Your task to perform on an android device: Open the calendar app, open the side menu, and click the "Day" option Image 0: 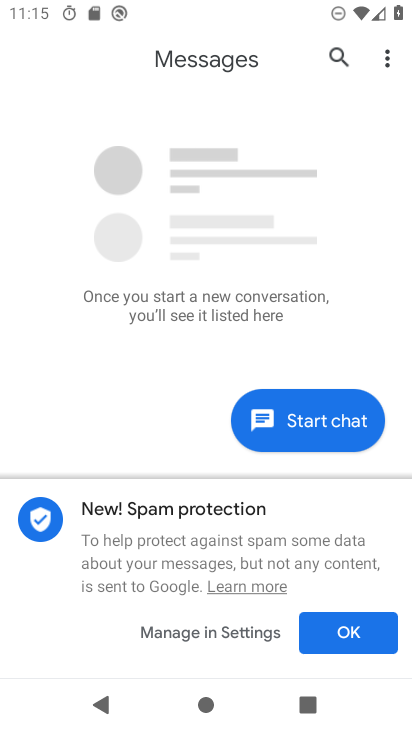
Step 0: press home button
Your task to perform on an android device: Open the calendar app, open the side menu, and click the "Day" option Image 1: 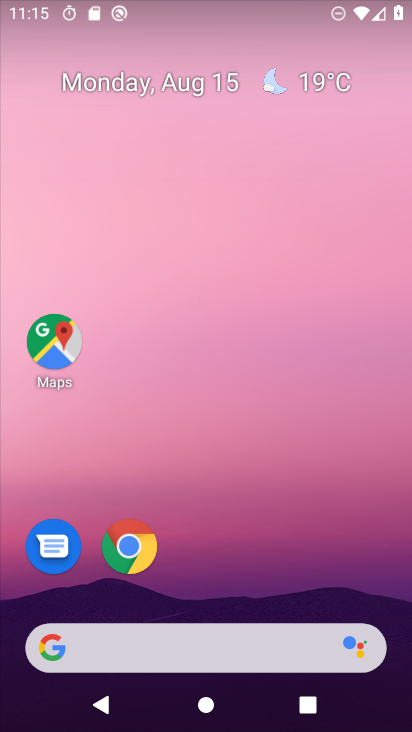
Step 1: drag from (235, 613) to (185, 42)
Your task to perform on an android device: Open the calendar app, open the side menu, and click the "Day" option Image 2: 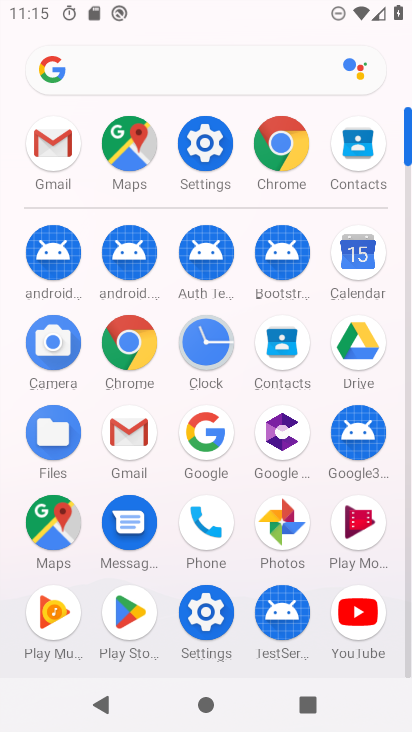
Step 2: click (362, 252)
Your task to perform on an android device: Open the calendar app, open the side menu, and click the "Day" option Image 3: 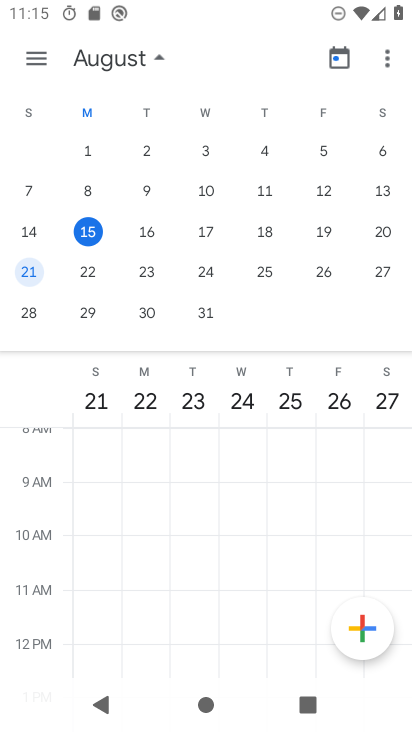
Step 3: click (39, 57)
Your task to perform on an android device: Open the calendar app, open the side menu, and click the "Day" option Image 4: 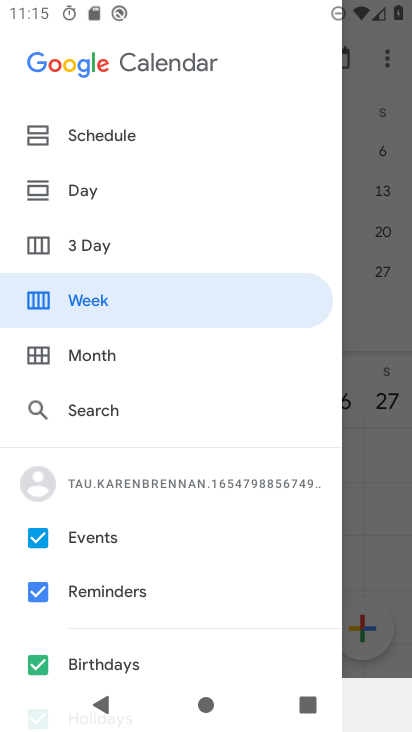
Step 4: click (87, 187)
Your task to perform on an android device: Open the calendar app, open the side menu, and click the "Day" option Image 5: 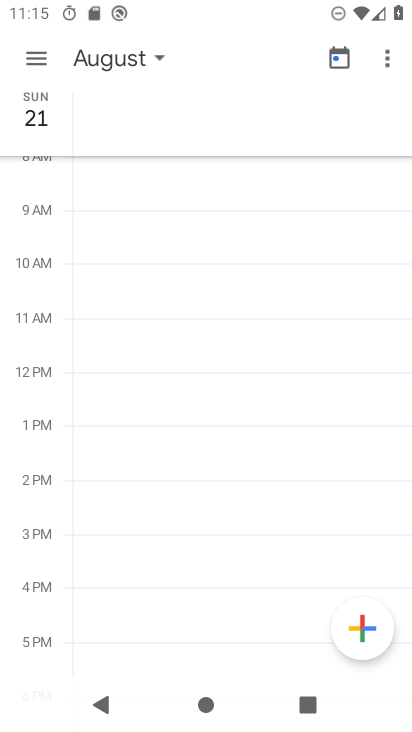
Step 5: task complete